Your task to perform on an android device: move an email to a new category in the gmail app Image 0: 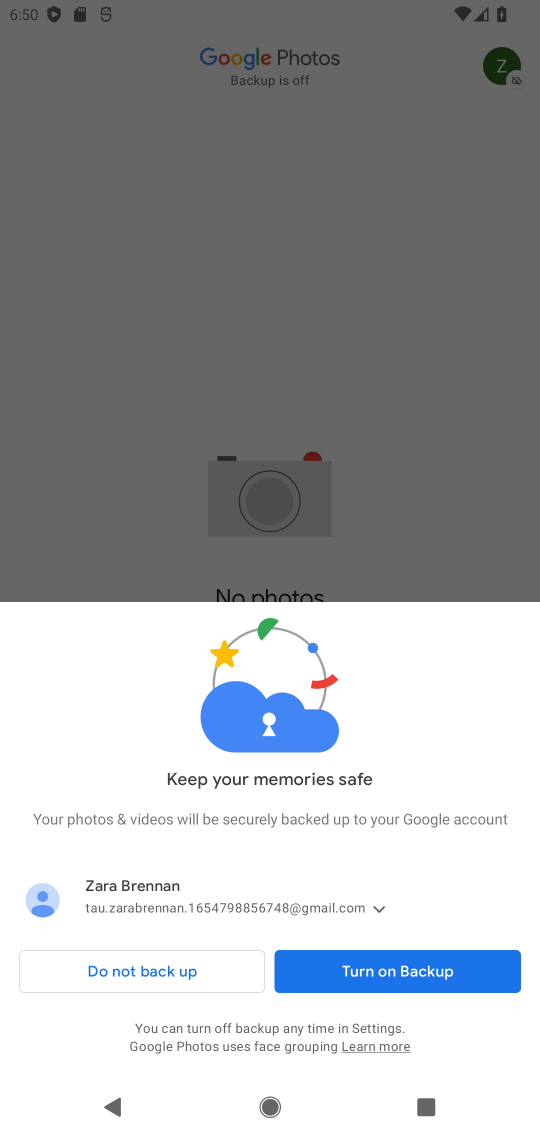
Step 0: press home button
Your task to perform on an android device: move an email to a new category in the gmail app Image 1: 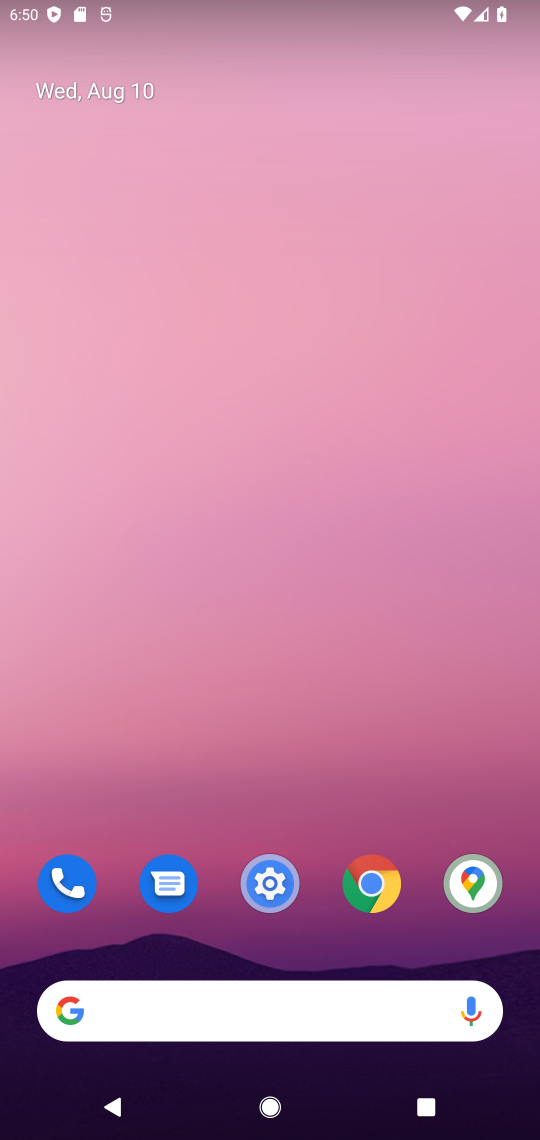
Step 1: drag from (296, 815) to (278, 323)
Your task to perform on an android device: move an email to a new category in the gmail app Image 2: 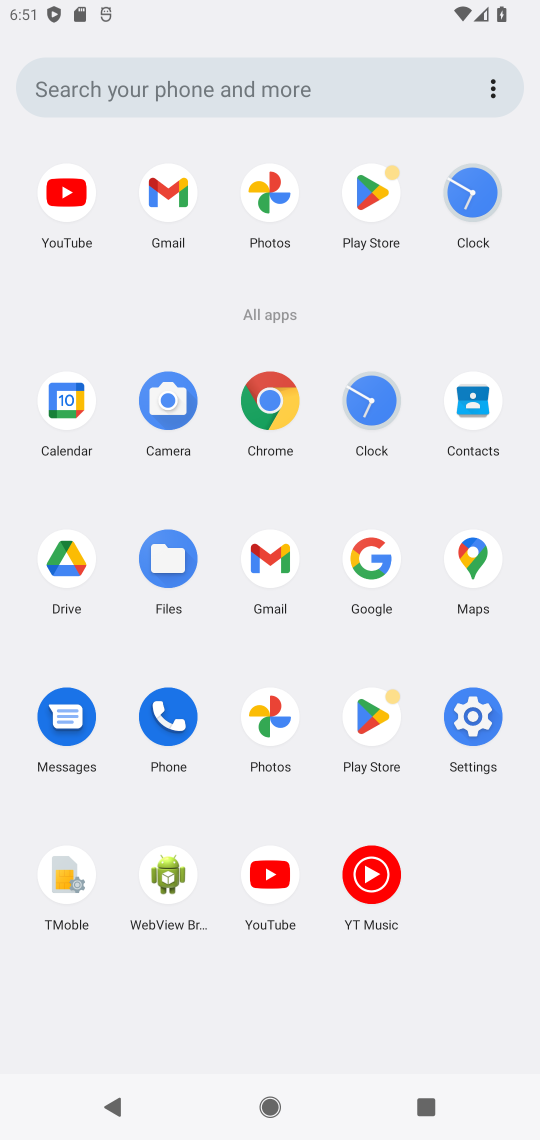
Step 2: click (279, 560)
Your task to perform on an android device: move an email to a new category in the gmail app Image 3: 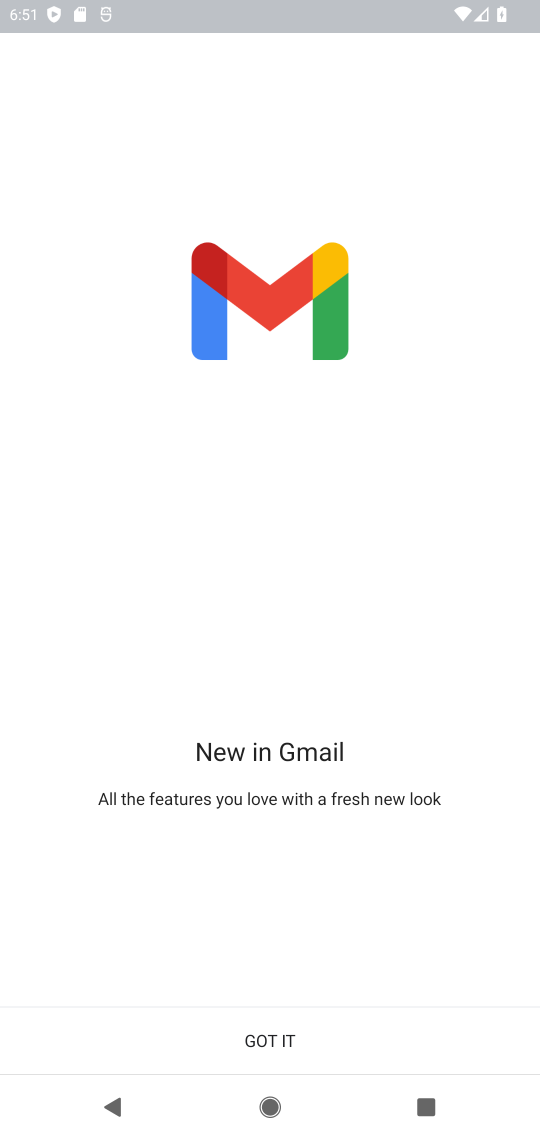
Step 3: click (325, 1030)
Your task to perform on an android device: move an email to a new category in the gmail app Image 4: 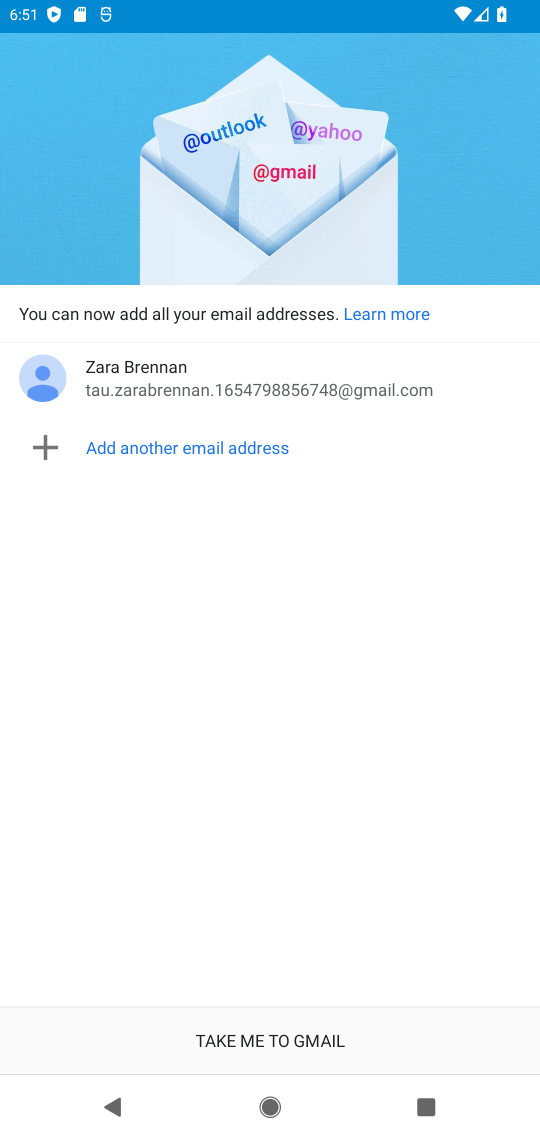
Step 4: click (325, 1030)
Your task to perform on an android device: move an email to a new category in the gmail app Image 5: 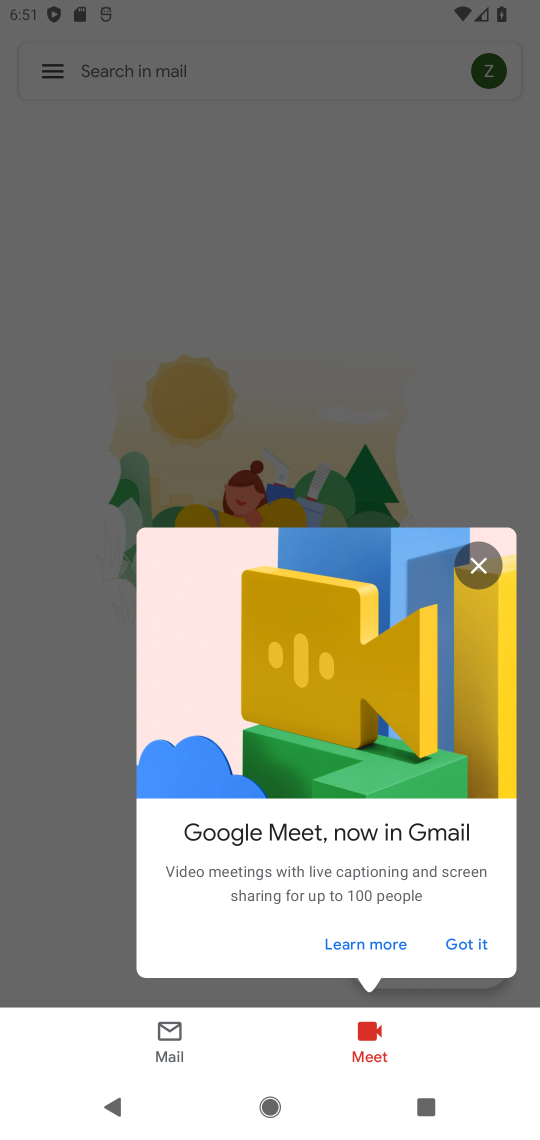
Step 5: click (461, 954)
Your task to perform on an android device: move an email to a new category in the gmail app Image 6: 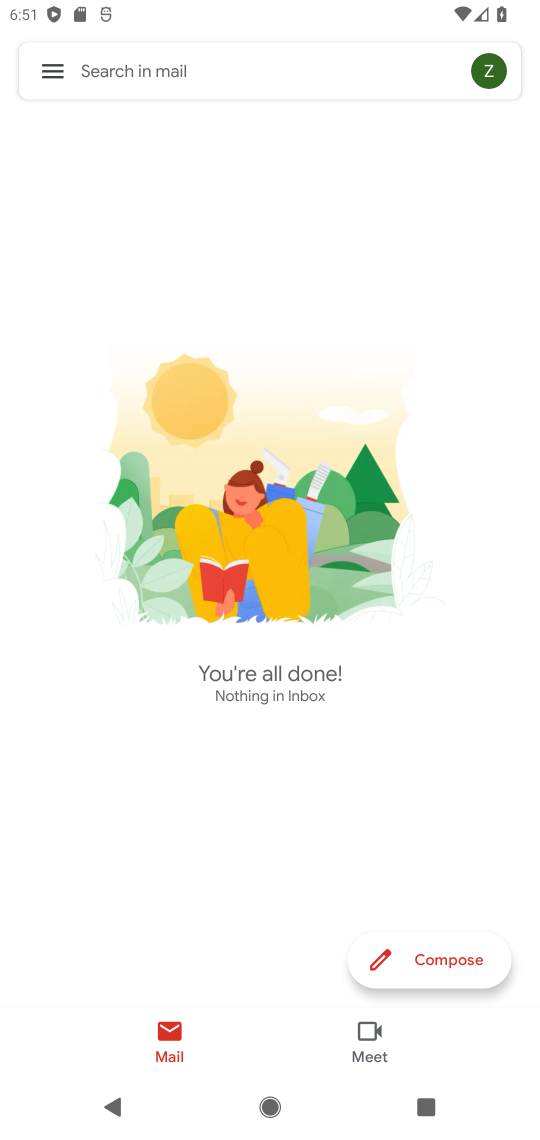
Step 6: click (67, 69)
Your task to perform on an android device: move an email to a new category in the gmail app Image 7: 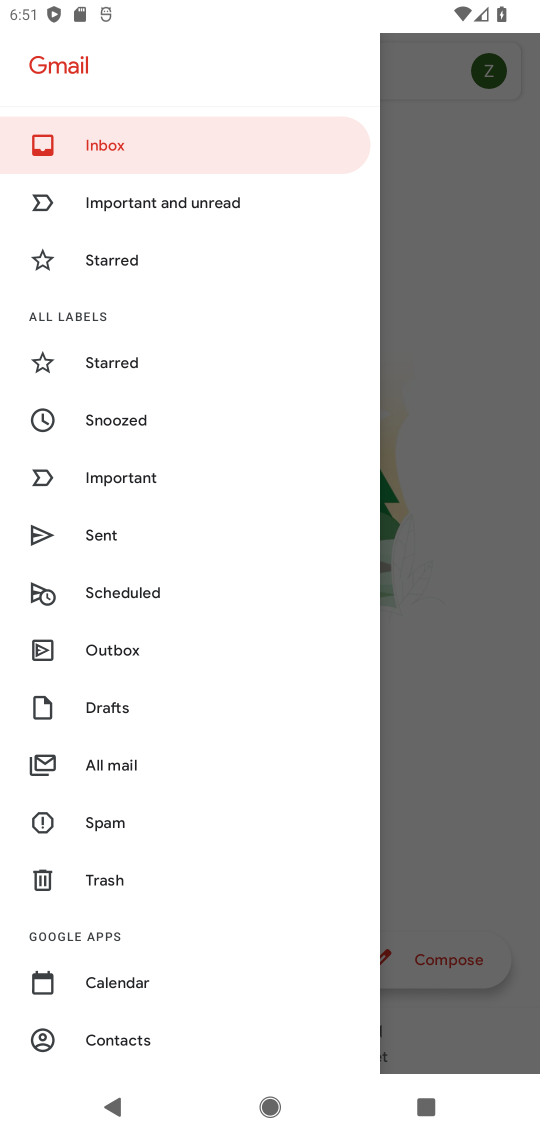
Step 7: click (109, 767)
Your task to perform on an android device: move an email to a new category in the gmail app Image 8: 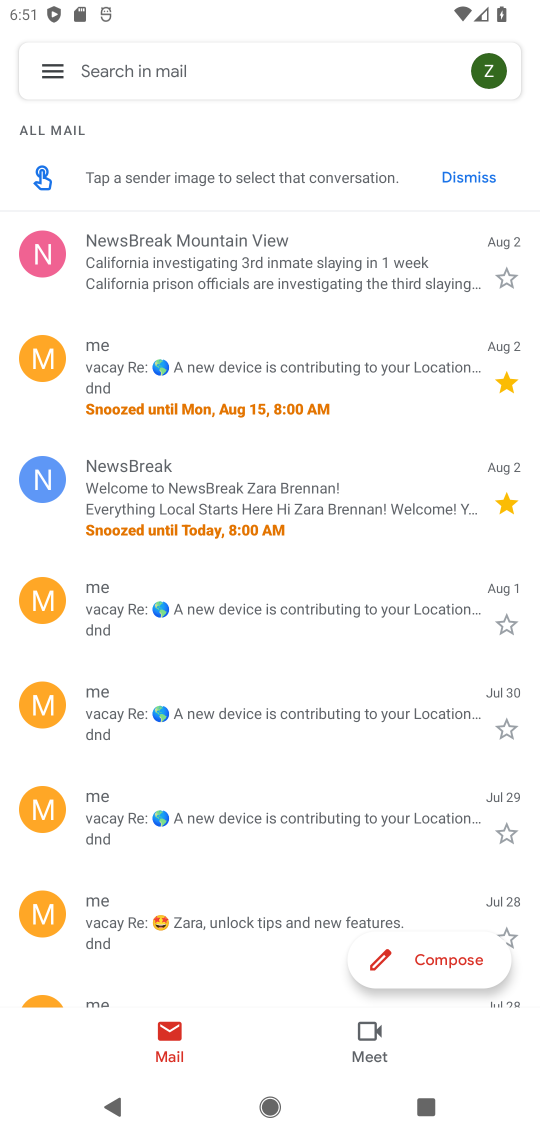
Step 8: click (51, 242)
Your task to perform on an android device: move an email to a new category in the gmail app Image 9: 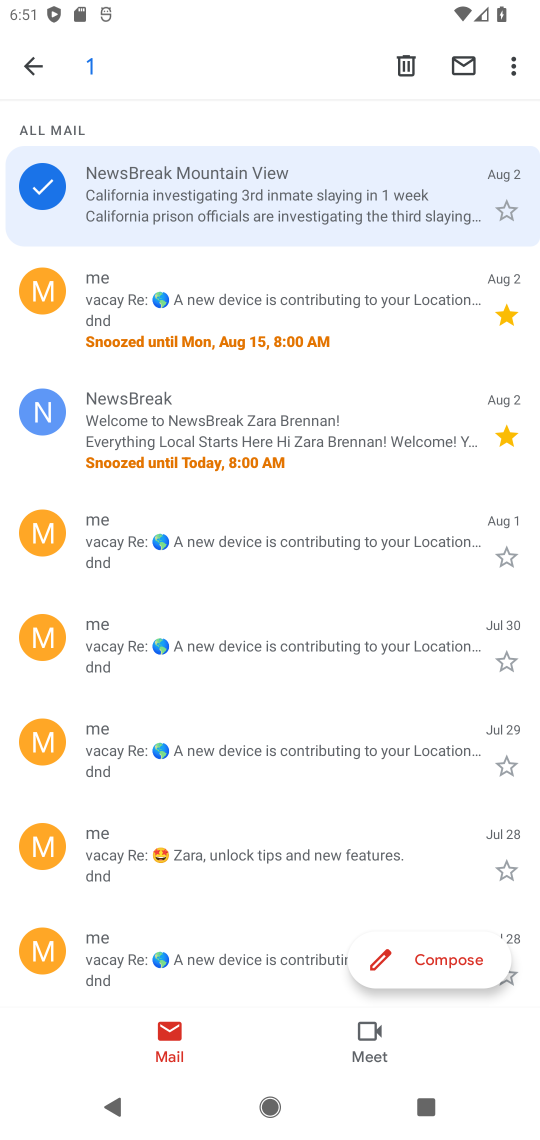
Step 9: click (500, 61)
Your task to perform on an android device: move an email to a new category in the gmail app Image 10: 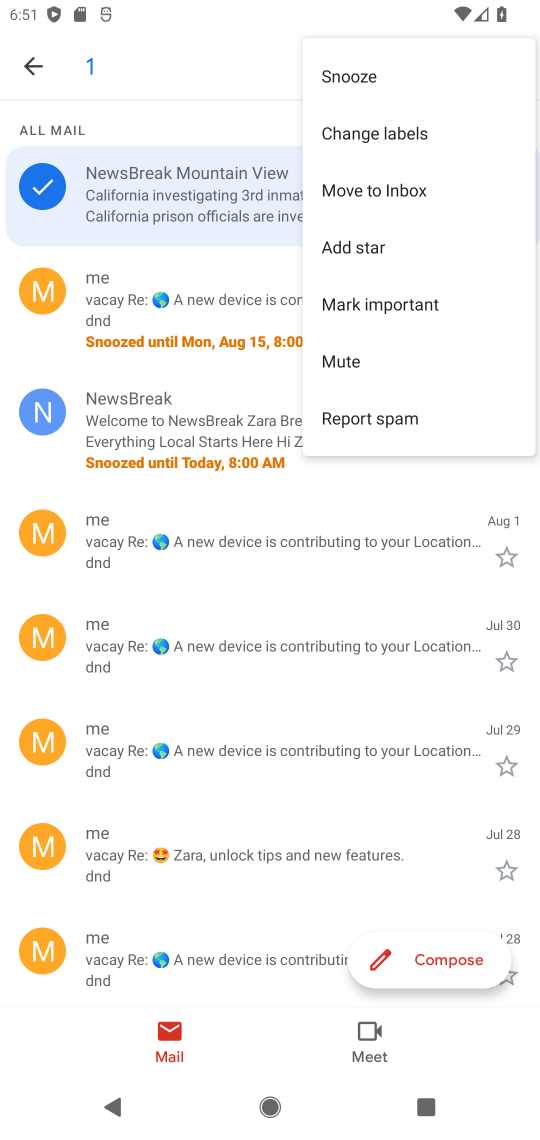
Step 10: click (446, 196)
Your task to perform on an android device: move an email to a new category in the gmail app Image 11: 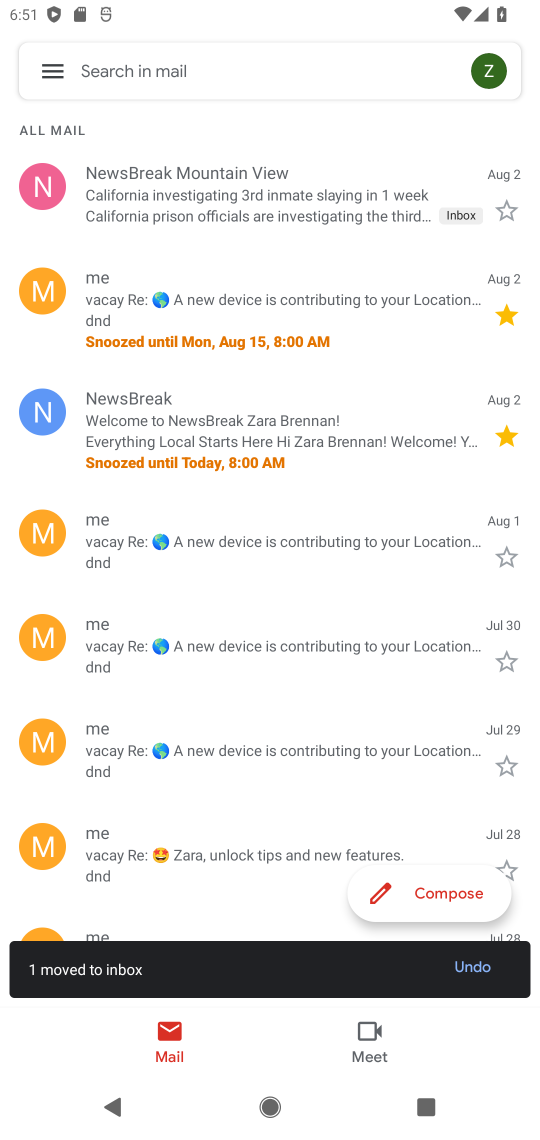
Step 11: task complete